Your task to perform on an android device: Open eBay Image 0: 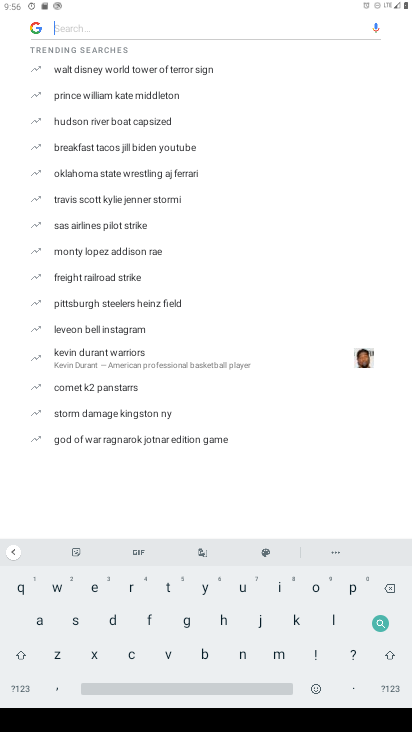
Step 0: press home button
Your task to perform on an android device: Open eBay Image 1: 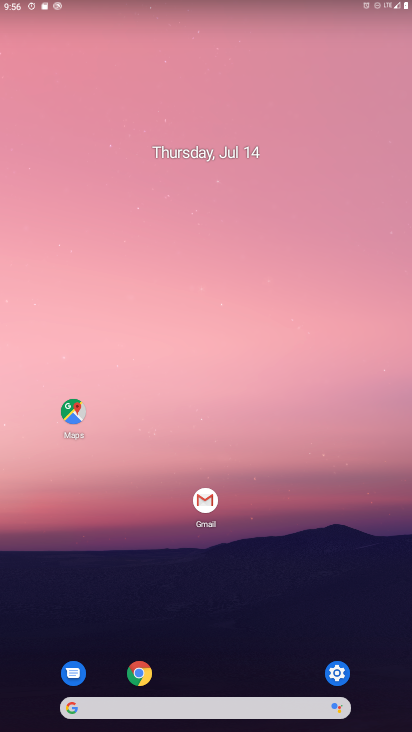
Step 1: click (141, 661)
Your task to perform on an android device: Open eBay Image 2: 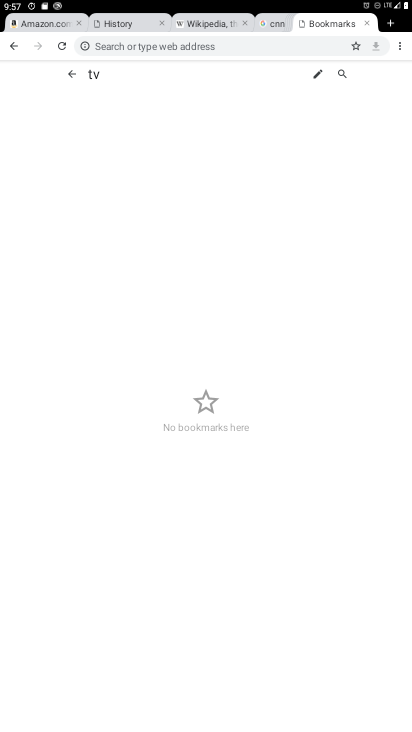
Step 2: click (391, 27)
Your task to perform on an android device: Open eBay Image 3: 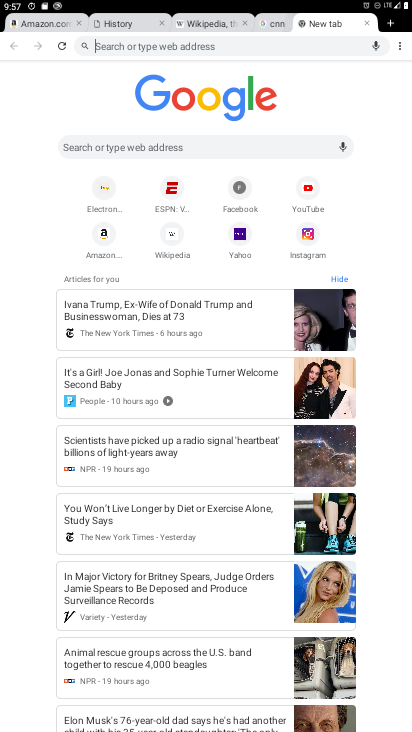
Step 3: click (169, 130)
Your task to perform on an android device: Open eBay Image 4: 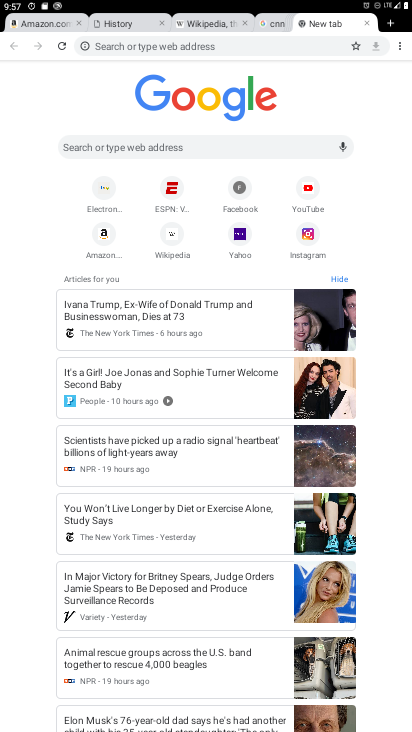
Step 4: click (125, 148)
Your task to perform on an android device: Open eBay Image 5: 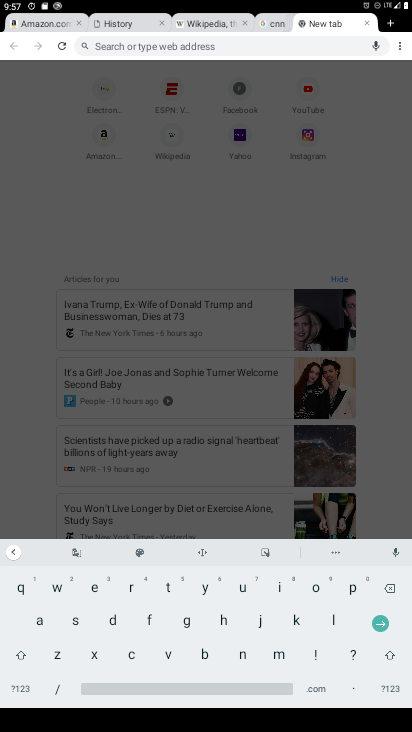
Step 5: click (96, 585)
Your task to perform on an android device: Open eBay Image 6: 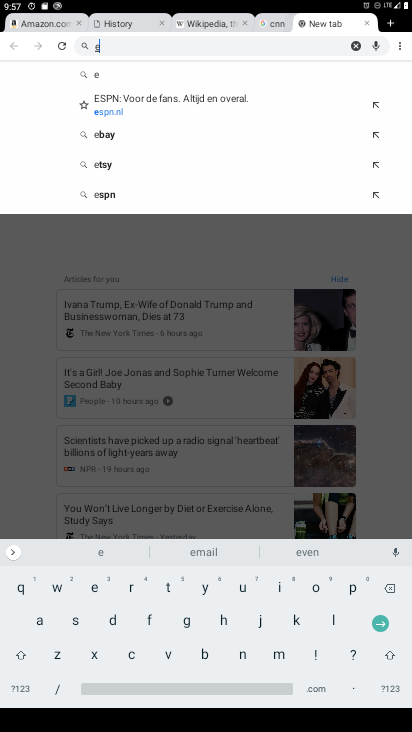
Step 6: click (208, 649)
Your task to perform on an android device: Open eBay Image 7: 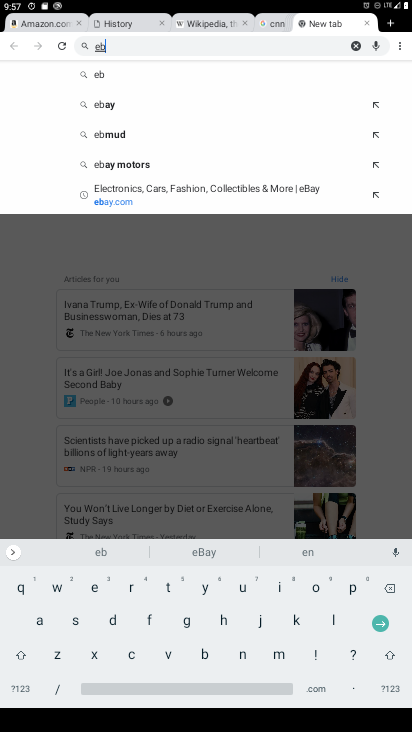
Step 7: click (115, 105)
Your task to perform on an android device: Open eBay Image 8: 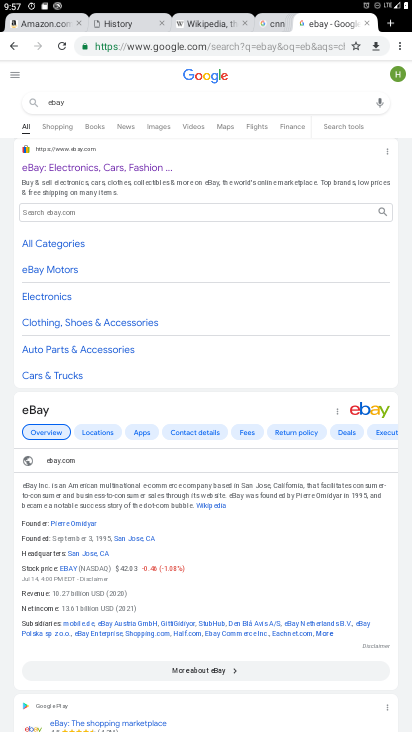
Step 8: click (72, 162)
Your task to perform on an android device: Open eBay Image 9: 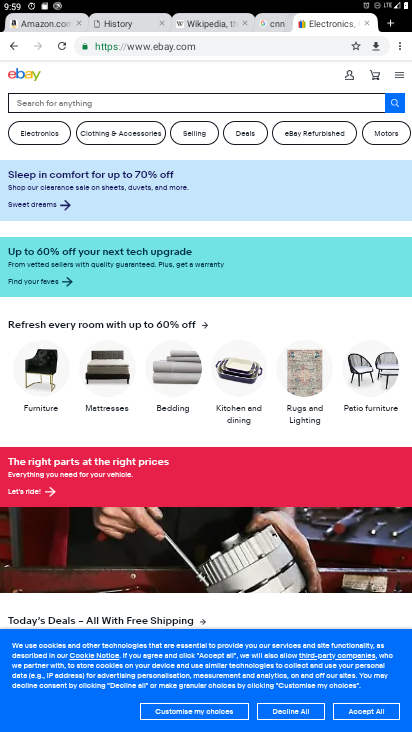
Step 9: task complete